Your task to perform on an android device: find snoozed emails in the gmail app Image 0: 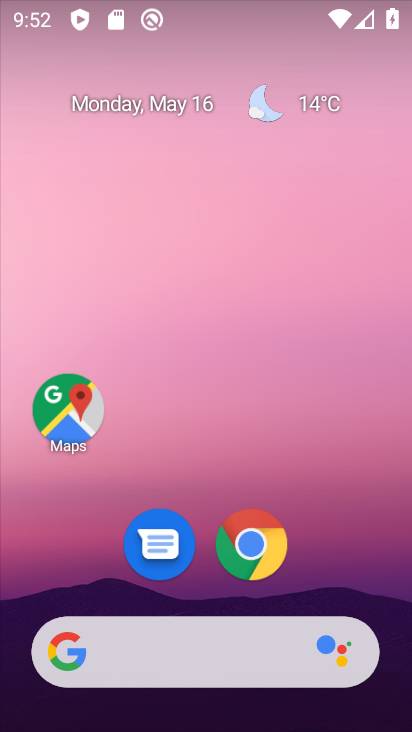
Step 0: drag from (307, 593) to (303, 13)
Your task to perform on an android device: find snoozed emails in the gmail app Image 1: 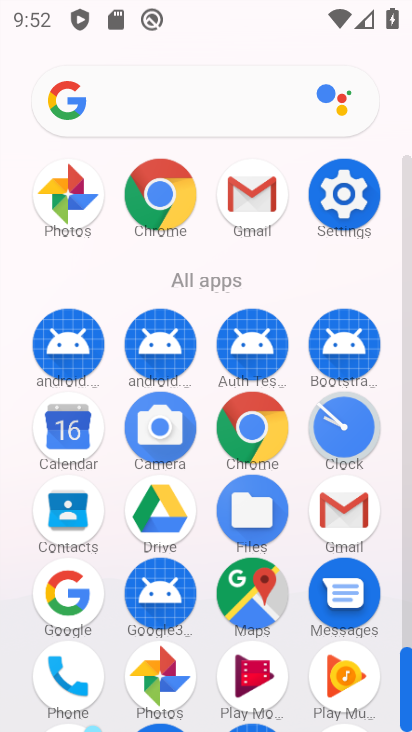
Step 1: click (354, 502)
Your task to perform on an android device: find snoozed emails in the gmail app Image 2: 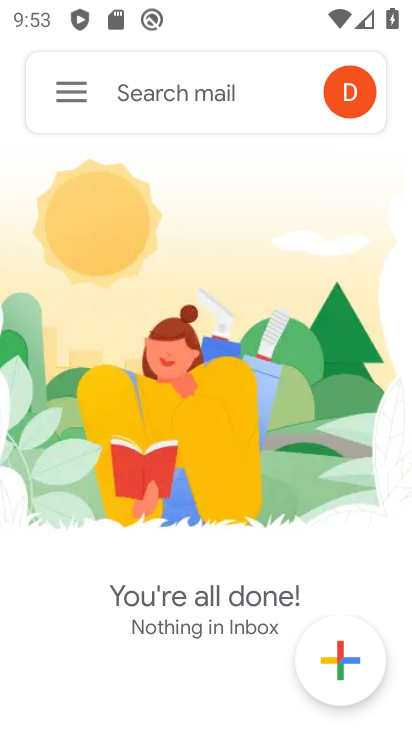
Step 2: click (79, 92)
Your task to perform on an android device: find snoozed emails in the gmail app Image 3: 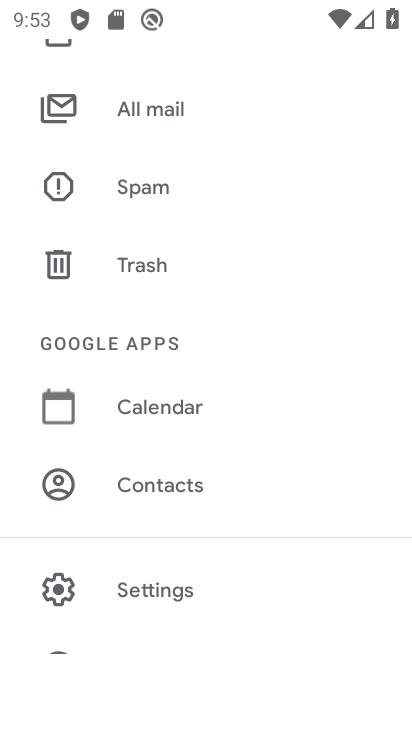
Step 3: drag from (261, 281) to (209, 642)
Your task to perform on an android device: find snoozed emails in the gmail app Image 4: 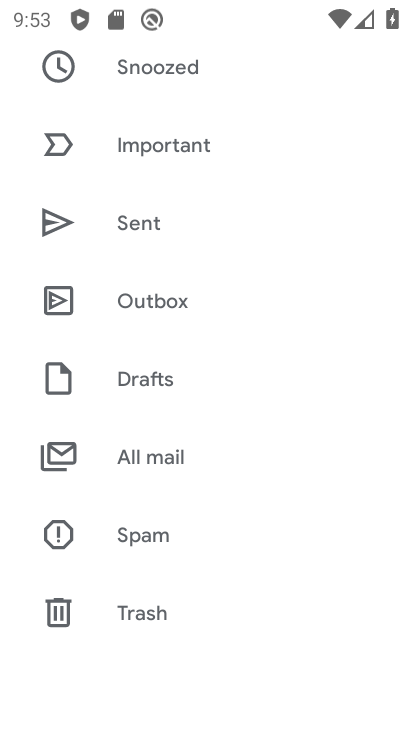
Step 4: drag from (247, 215) to (228, 443)
Your task to perform on an android device: find snoozed emails in the gmail app Image 5: 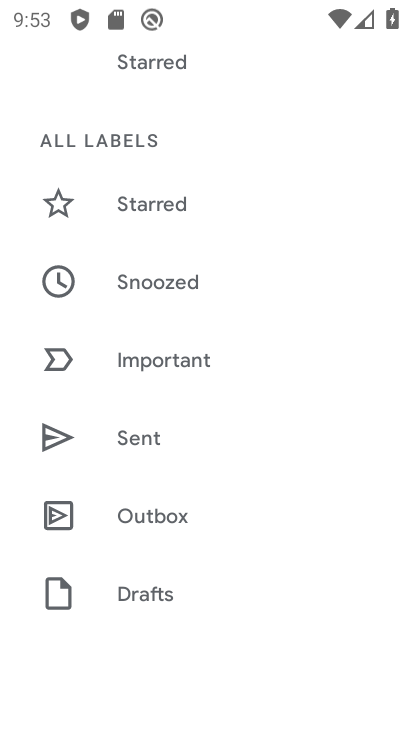
Step 5: click (192, 290)
Your task to perform on an android device: find snoozed emails in the gmail app Image 6: 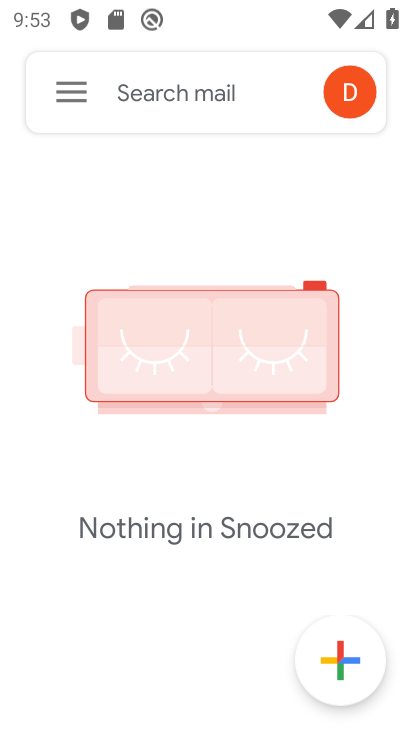
Step 6: task complete